Your task to perform on an android device: What's on my calendar today? Image 0: 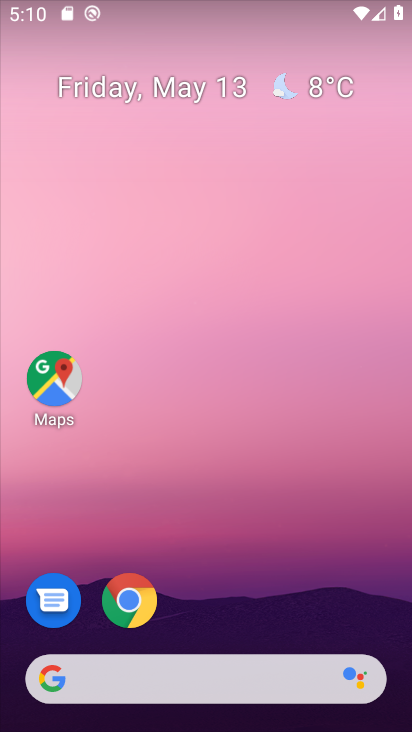
Step 0: drag from (222, 614) to (266, 212)
Your task to perform on an android device: What's on my calendar today? Image 1: 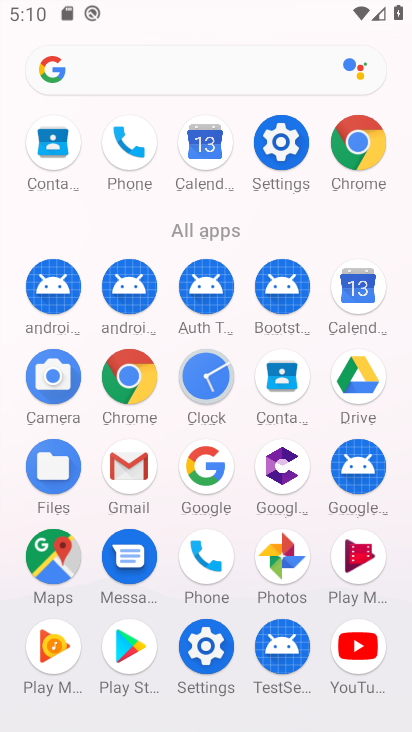
Step 1: click (361, 296)
Your task to perform on an android device: What's on my calendar today? Image 2: 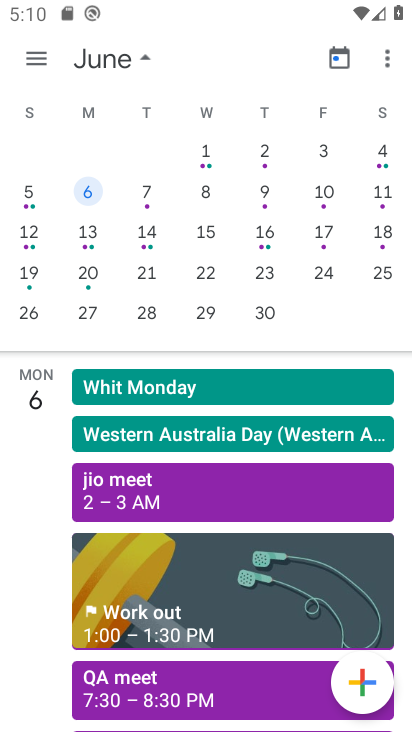
Step 2: task complete